Your task to perform on an android device: toggle wifi Image 0: 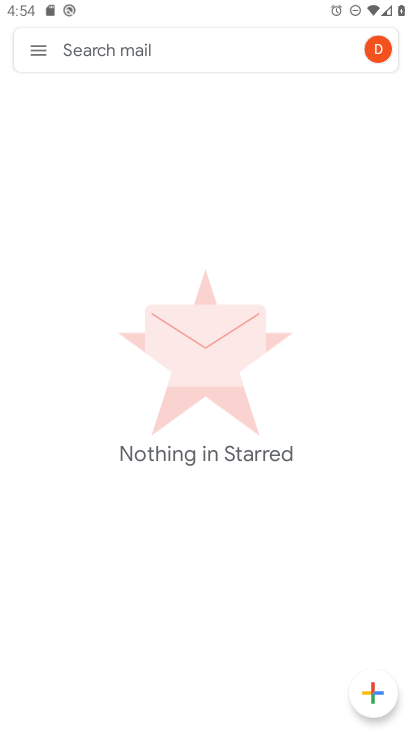
Step 0: press home button
Your task to perform on an android device: toggle wifi Image 1: 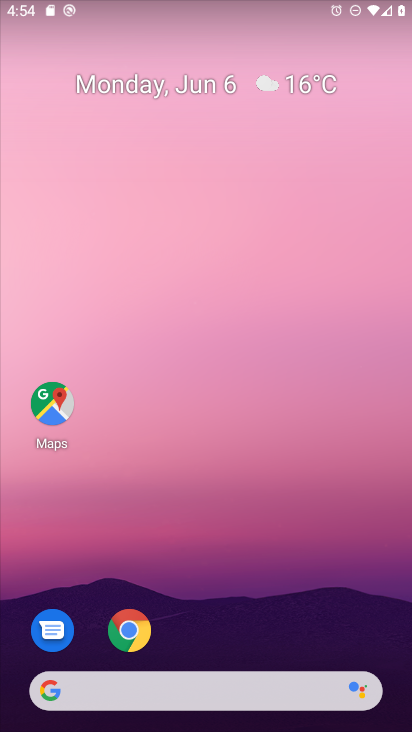
Step 1: drag from (297, 597) to (31, 60)
Your task to perform on an android device: toggle wifi Image 2: 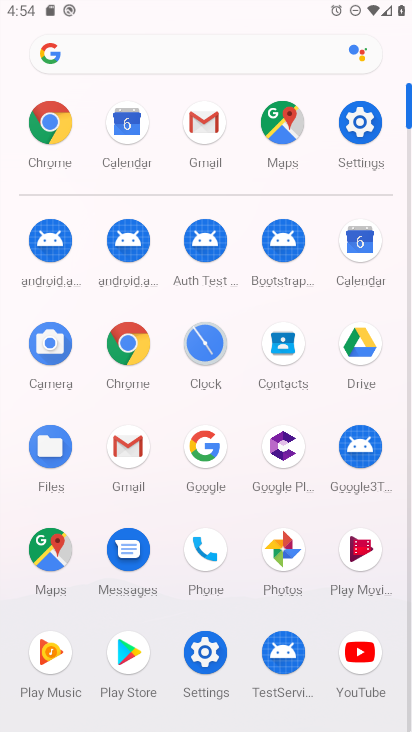
Step 2: click (374, 123)
Your task to perform on an android device: toggle wifi Image 3: 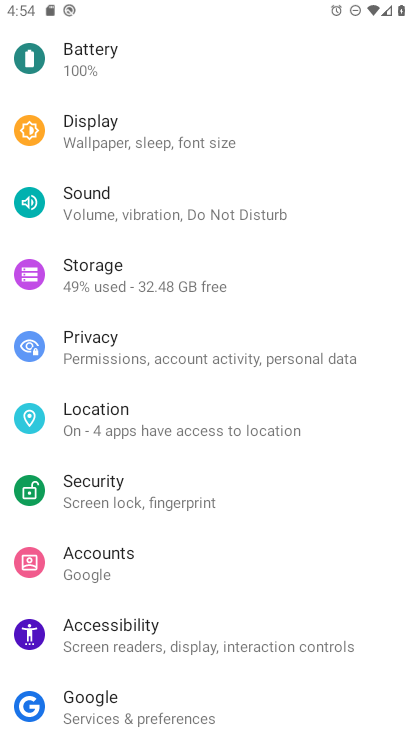
Step 3: drag from (203, 90) to (263, 711)
Your task to perform on an android device: toggle wifi Image 4: 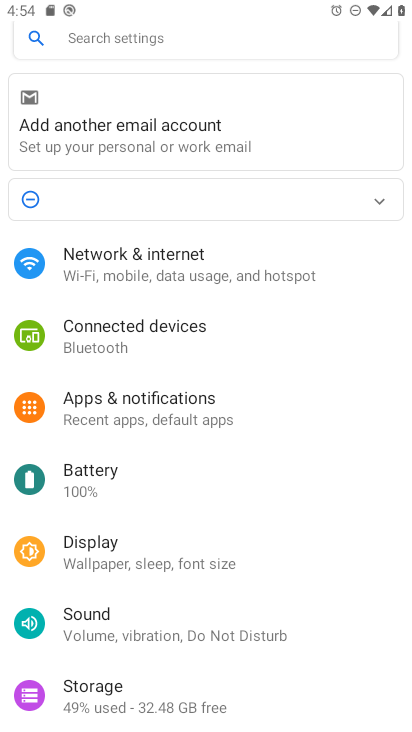
Step 4: click (206, 286)
Your task to perform on an android device: toggle wifi Image 5: 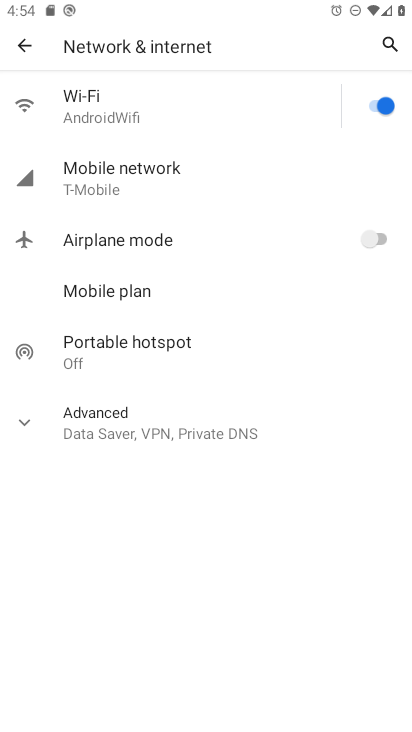
Step 5: click (238, 108)
Your task to perform on an android device: toggle wifi Image 6: 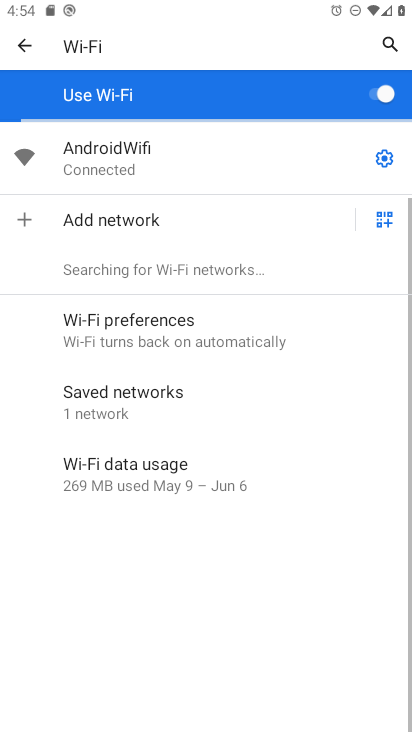
Step 6: click (385, 93)
Your task to perform on an android device: toggle wifi Image 7: 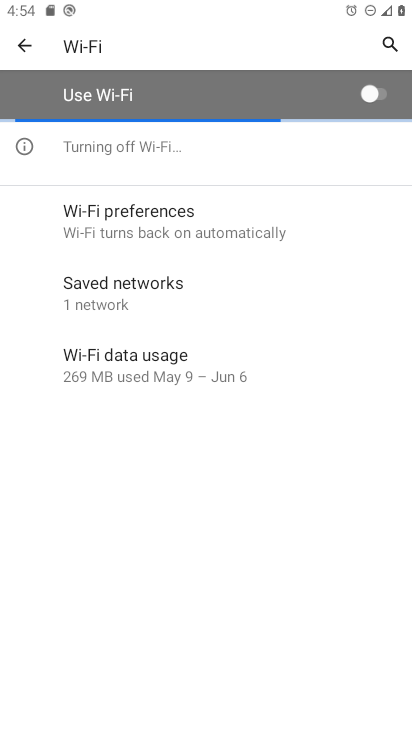
Step 7: task complete